Your task to perform on an android device: Open the web browser Image 0: 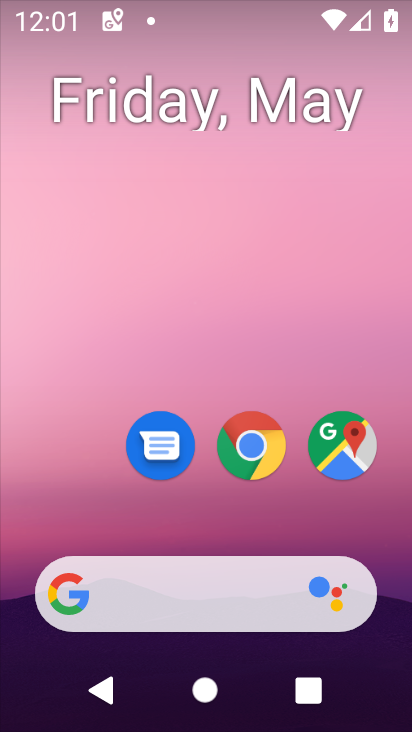
Step 0: drag from (305, 476) to (183, 56)
Your task to perform on an android device: Open the web browser Image 1: 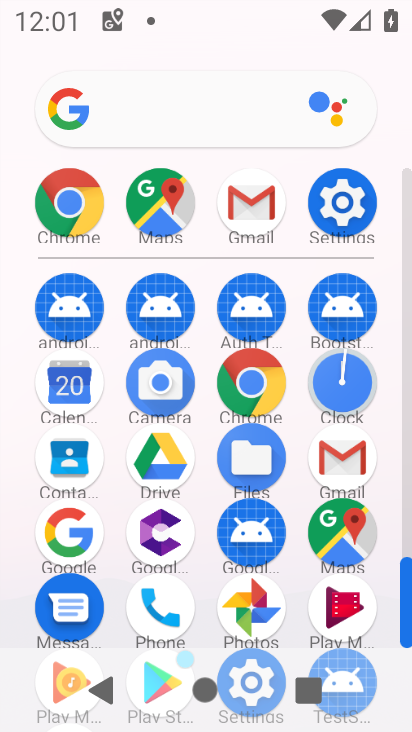
Step 1: click (240, 365)
Your task to perform on an android device: Open the web browser Image 2: 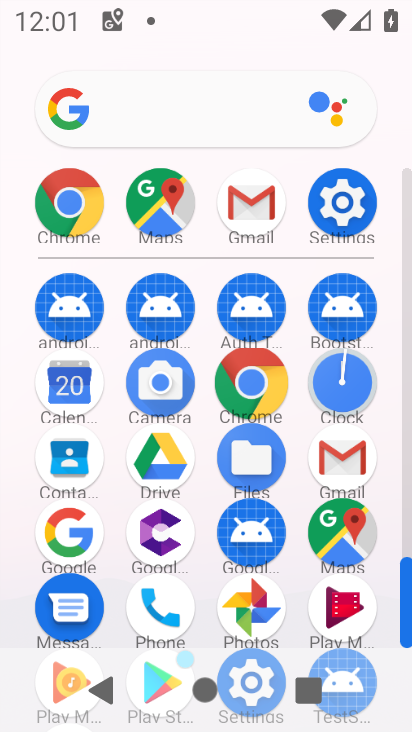
Step 2: click (248, 372)
Your task to perform on an android device: Open the web browser Image 3: 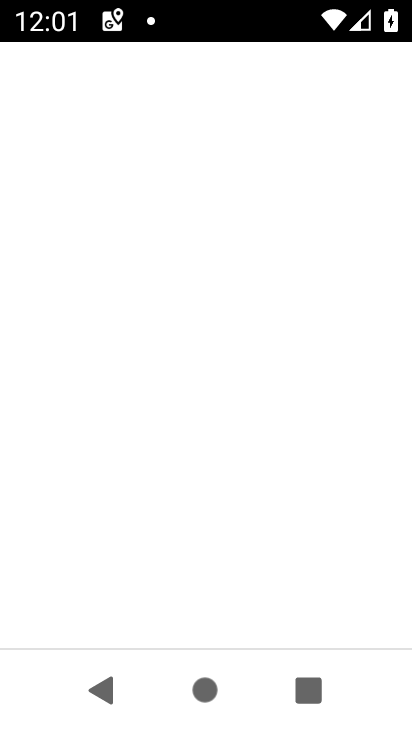
Step 3: click (249, 373)
Your task to perform on an android device: Open the web browser Image 4: 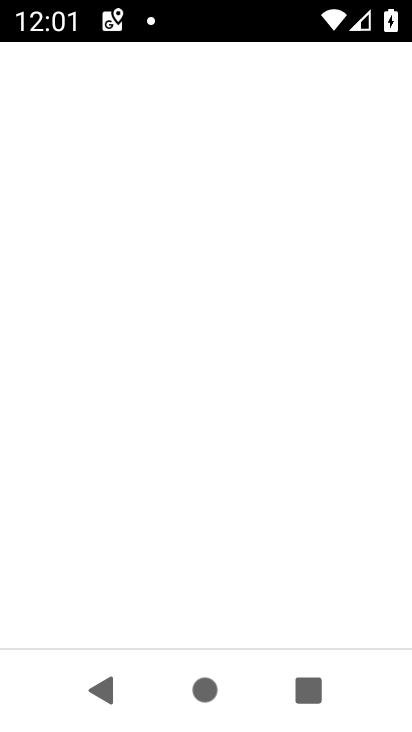
Step 4: click (251, 375)
Your task to perform on an android device: Open the web browser Image 5: 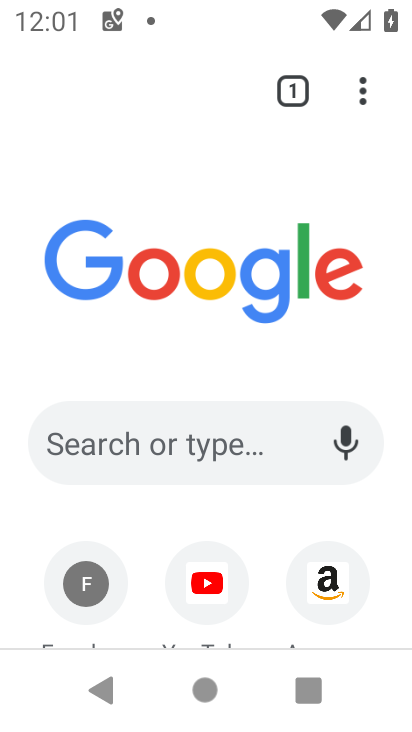
Step 5: click (354, 86)
Your task to perform on an android device: Open the web browser Image 6: 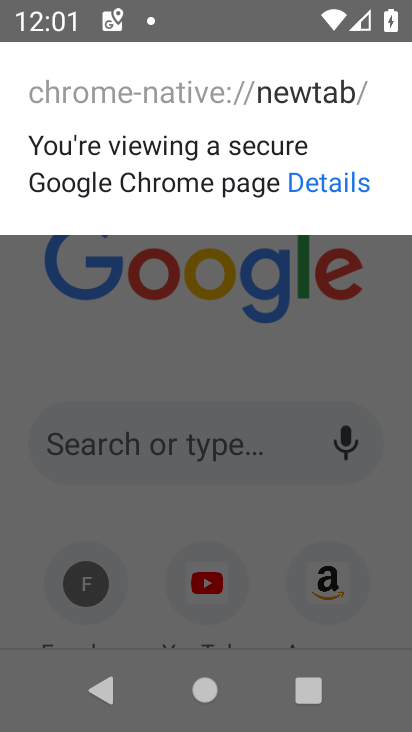
Step 6: click (236, 328)
Your task to perform on an android device: Open the web browser Image 7: 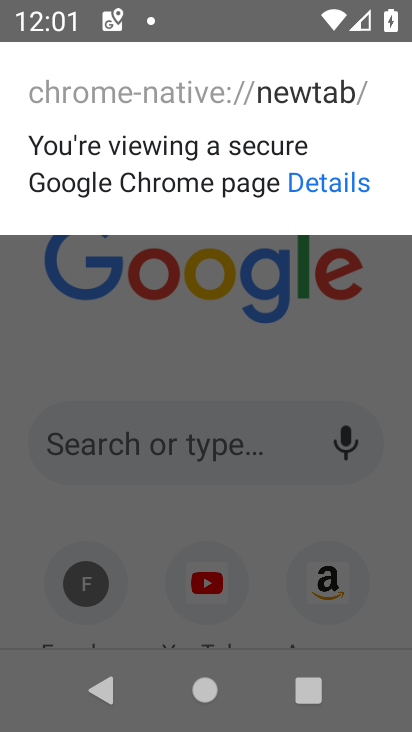
Step 7: click (215, 316)
Your task to perform on an android device: Open the web browser Image 8: 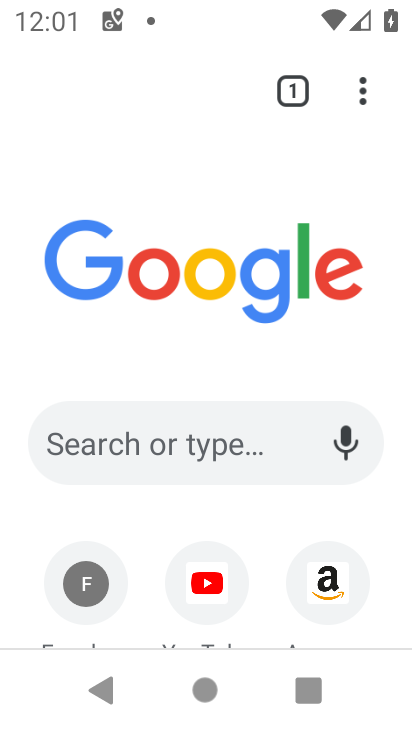
Step 8: drag from (272, 476) to (249, 194)
Your task to perform on an android device: Open the web browser Image 9: 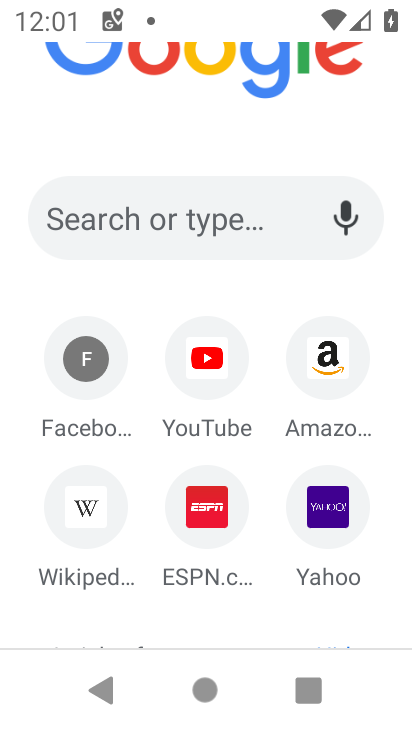
Step 9: click (92, 210)
Your task to perform on an android device: Open the web browser Image 10: 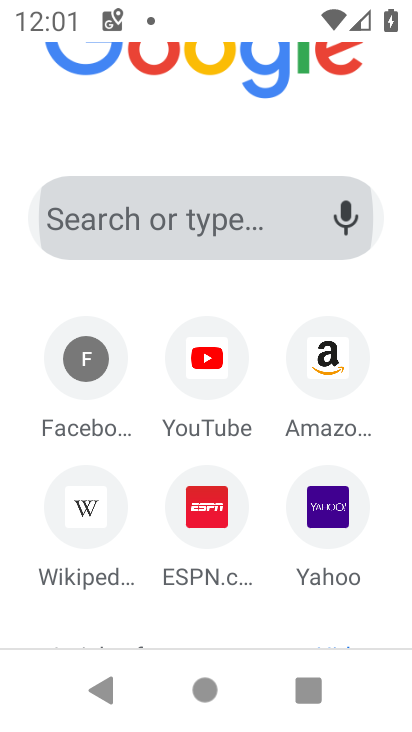
Step 10: click (92, 210)
Your task to perform on an android device: Open the web browser Image 11: 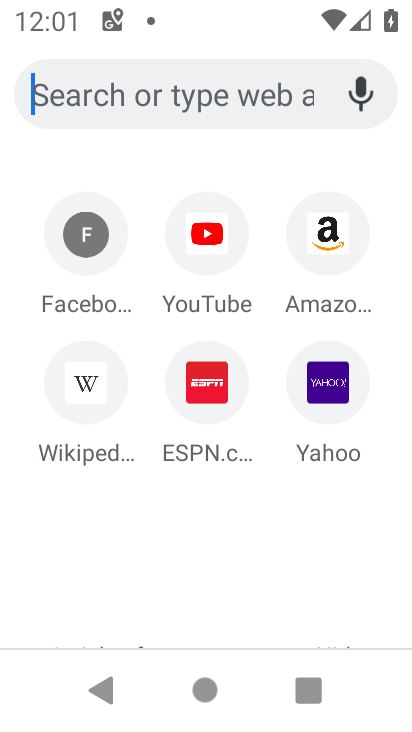
Step 11: click (92, 210)
Your task to perform on an android device: Open the web browser Image 12: 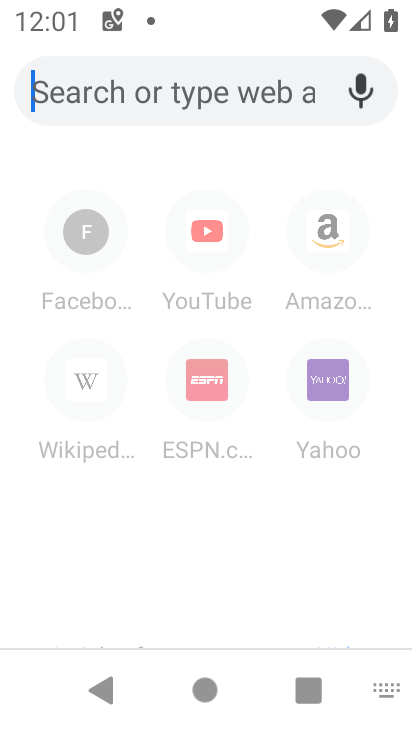
Step 12: click (92, 210)
Your task to perform on an android device: Open the web browser Image 13: 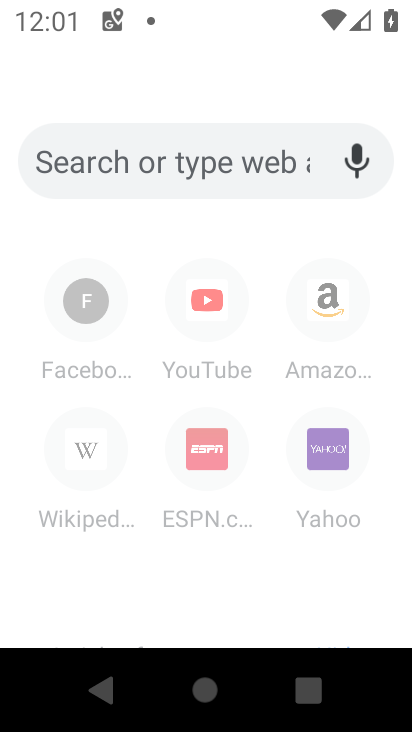
Step 13: click (91, 209)
Your task to perform on an android device: Open the web browser Image 14: 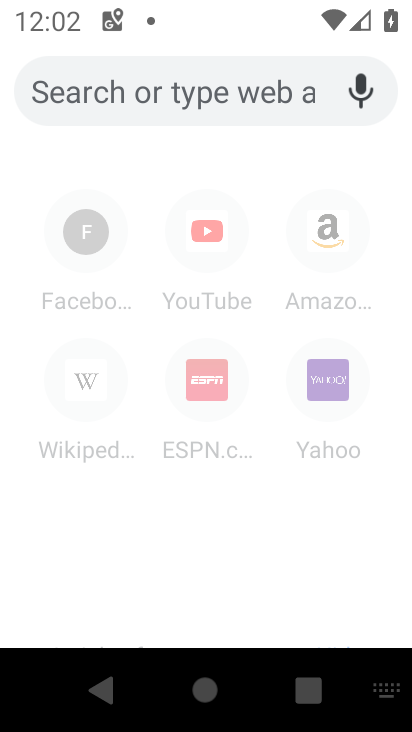
Step 14: press back button
Your task to perform on an android device: Open the web browser Image 15: 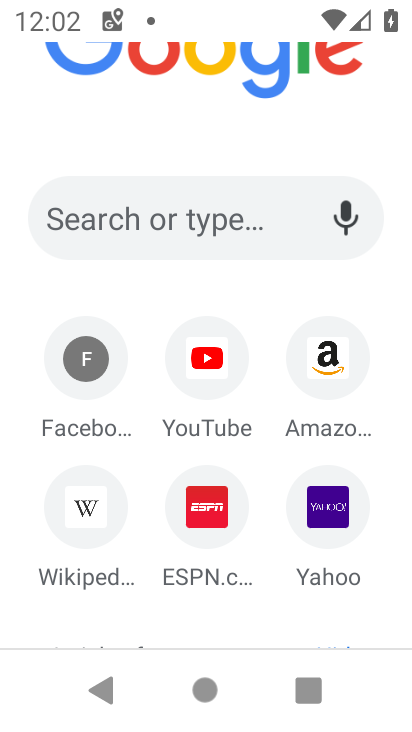
Step 15: click (147, 215)
Your task to perform on an android device: Open the web browser Image 16: 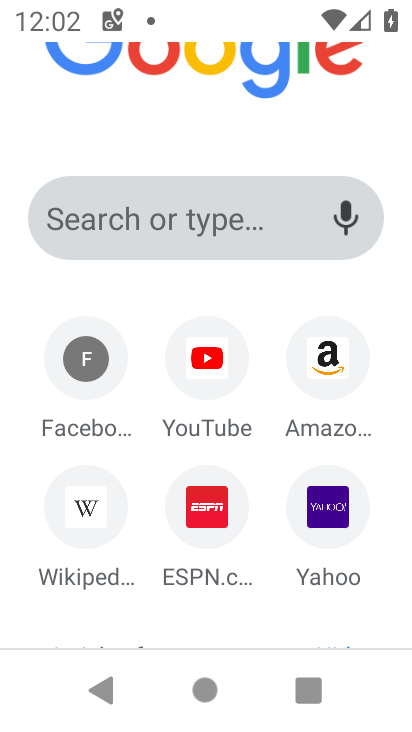
Step 16: click (144, 212)
Your task to perform on an android device: Open the web browser Image 17: 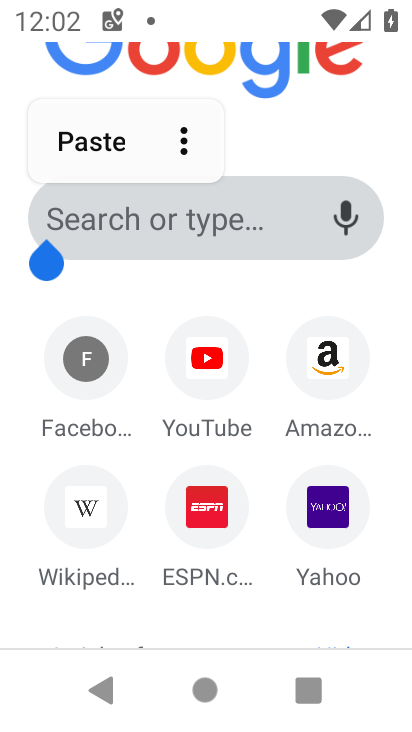
Step 17: click (142, 211)
Your task to perform on an android device: Open the web browser Image 18: 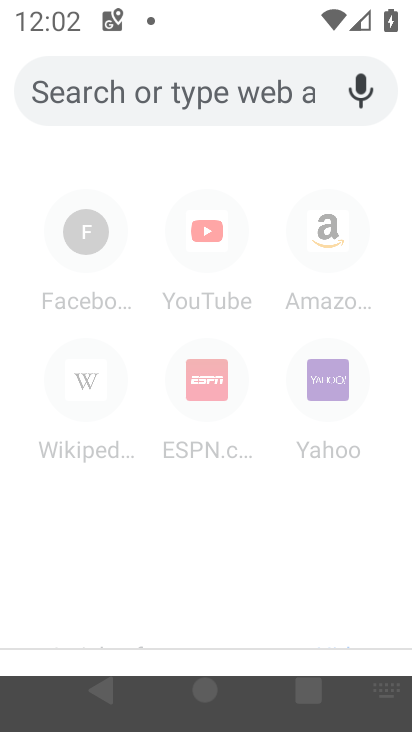
Step 18: click (103, 220)
Your task to perform on an android device: Open the web browser Image 19: 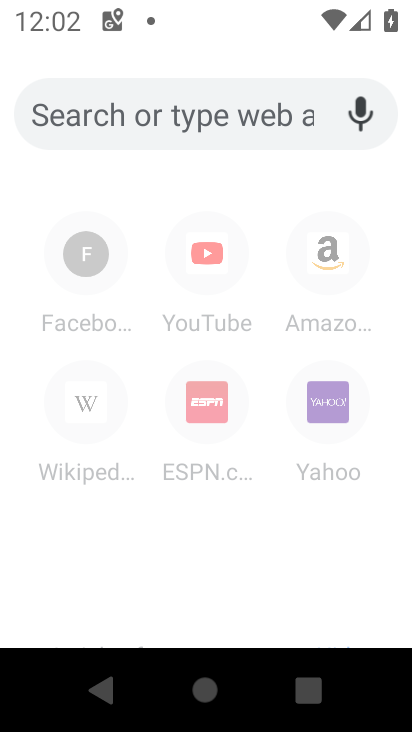
Step 19: click (101, 218)
Your task to perform on an android device: Open the web browser Image 20: 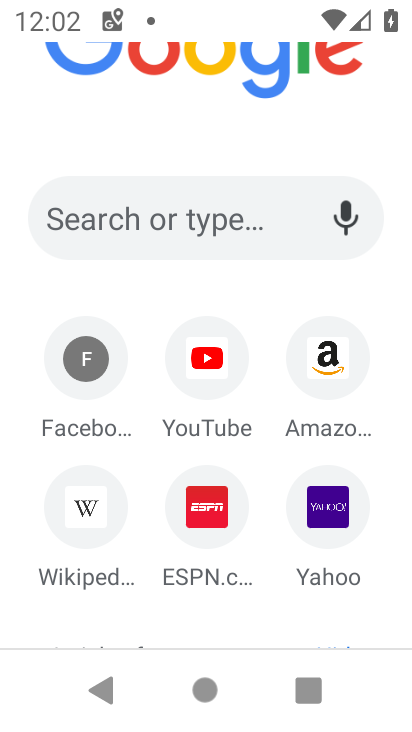
Step 20: click (83, 218)
Your task to perform on an android device: Open the web browser Image 21: 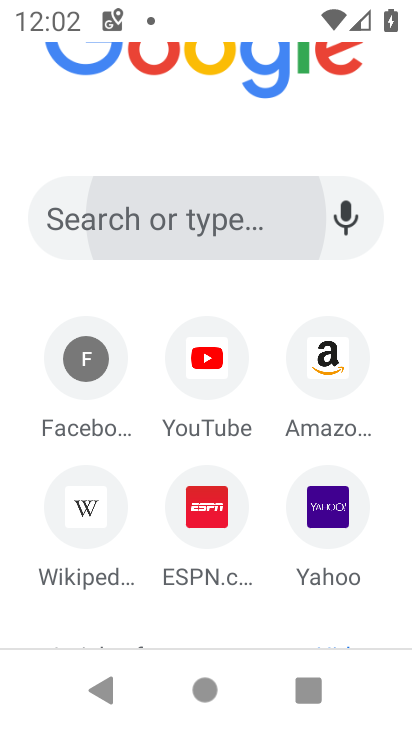
Step 21: click (83, 218)
Your task to perform on an android device: Open the web browser Image 22: 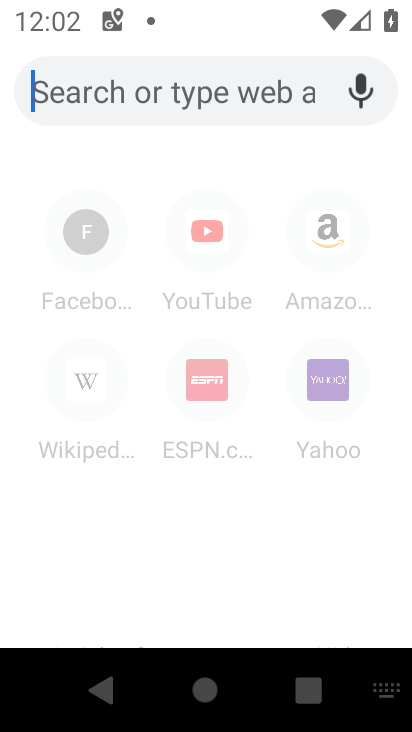
Step 22: task complete